Your task to perform on an android device: empty trash in google photos Image 0: 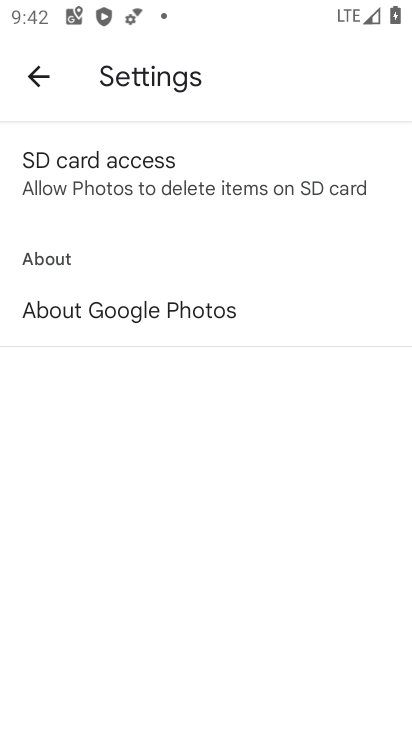
Step 0: press home button
Your task to perform on an android device: empty trash in google photos Image 1: 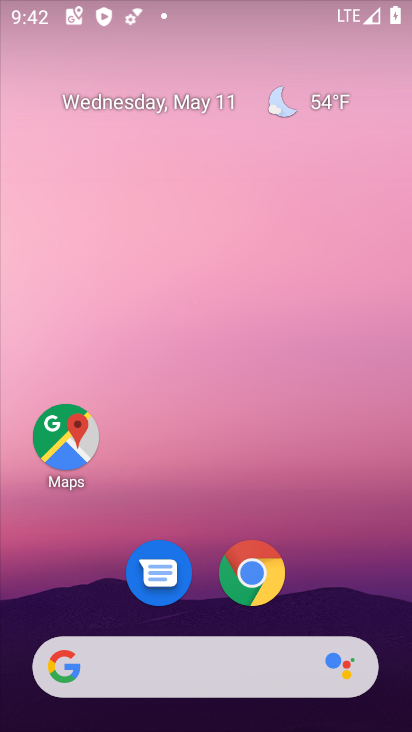
Step 1: drag from (186, 681) to (355, 38)
Your task to perform on an android device: empty trash in google photos Image 2: 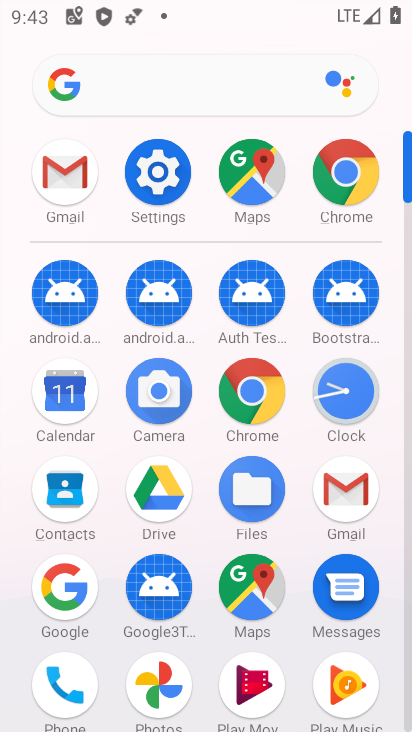
Step 2: click (181, 682)
Your task to perform on an android device: empty trash in google photos Image 3: 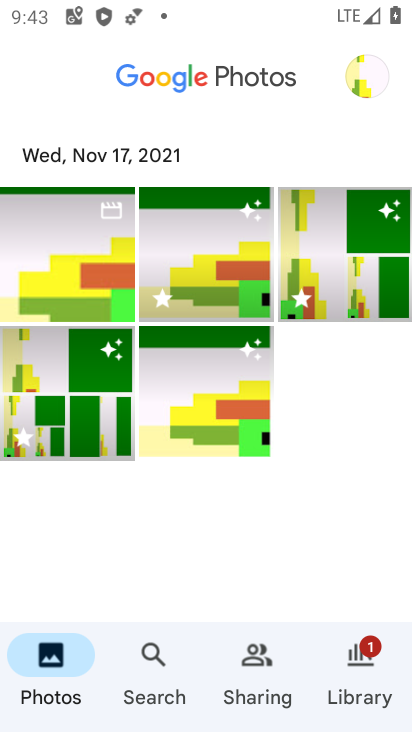
Step 3: click (369, 73)
Your task to perform on an android device: empty trash in google photos Image 4: 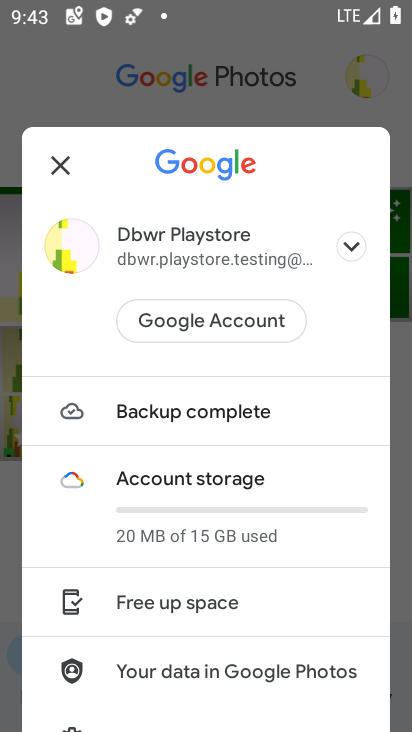
Step 4: click (53, 164)
Your task to perform on an android device: empty trash in google photos Image 5: 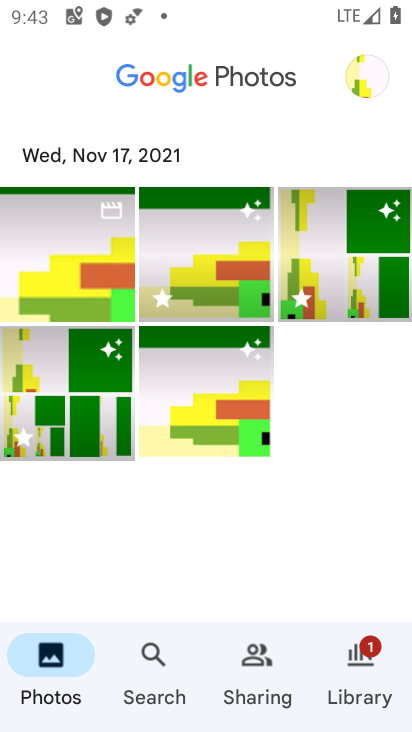
Step 5: click (365, 685)
Your task to perform on an android device: empty trash in google photos Image 6: 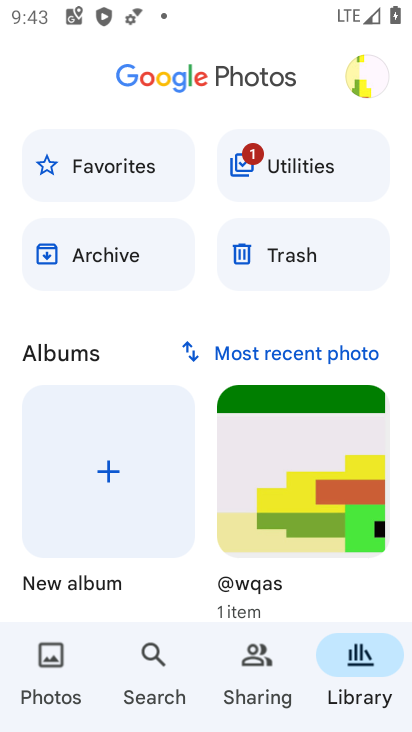
Step 6: click (274, 252)
Your task to perform on an android device: empty trash in google photos Image 7: 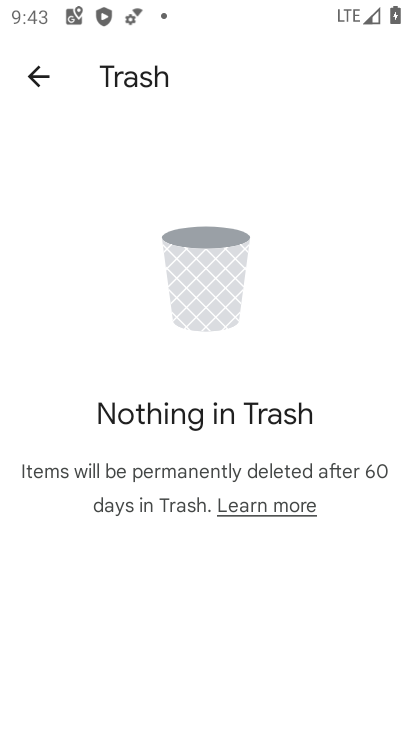
Step 7: task complete